Your task to perform on an android device: turn off sleep mode Image 0: 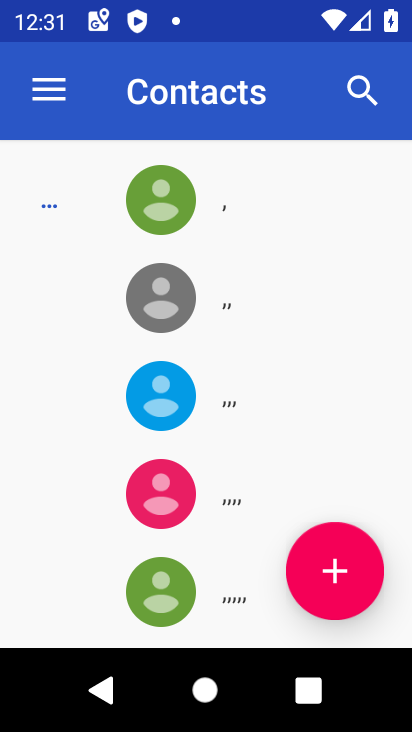
Step 0: press home button
Your task to perform on an android device: turn off sleep mode Image 1: 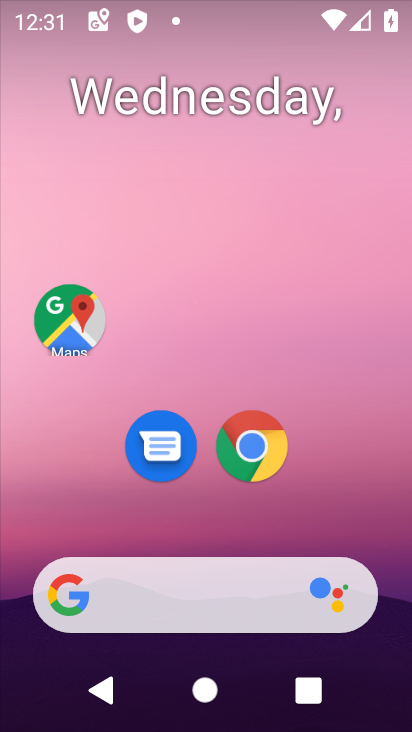
Step 1: drag from (213, 532) to (193, 157)
Your task to perform on an android device: turn off sleep mode Image 2: 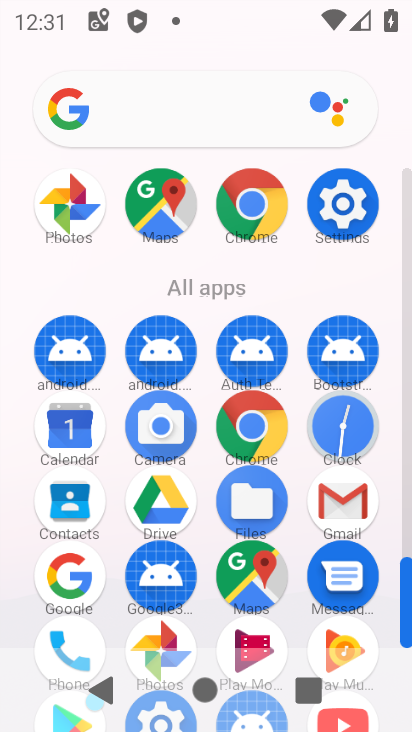
Step 2: drag from (190, 275) to (208, 88)
Your task to perform on an android device: turn off sleep mode Image 3: 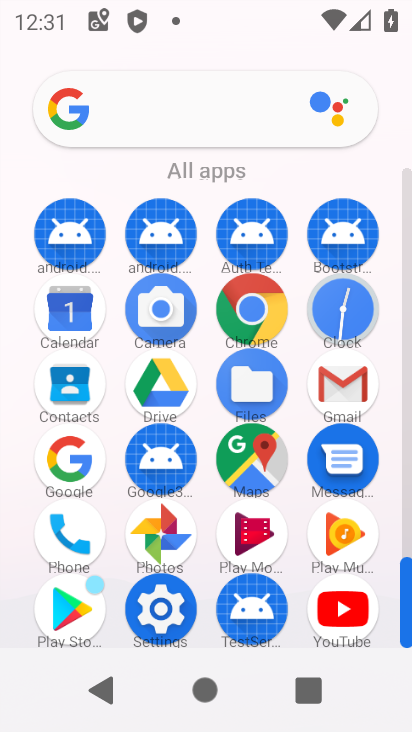
Step 3: click (152, 606)
Your task to perform on an android device: turn off sleep mode Image 4: 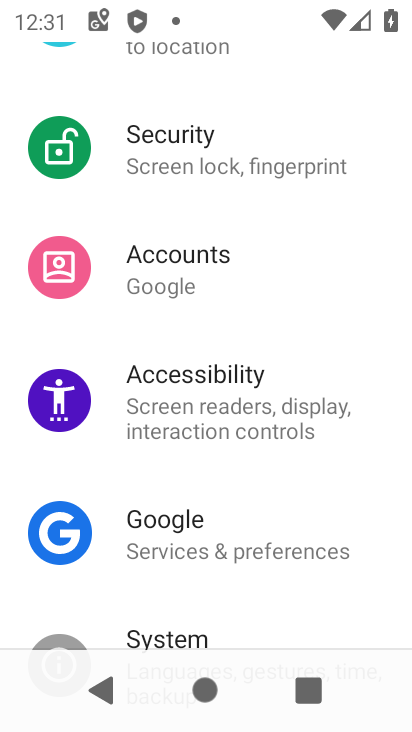
Step 4: task complete